Your task to perform on an android device: turn on improve location accuracy Image 0: 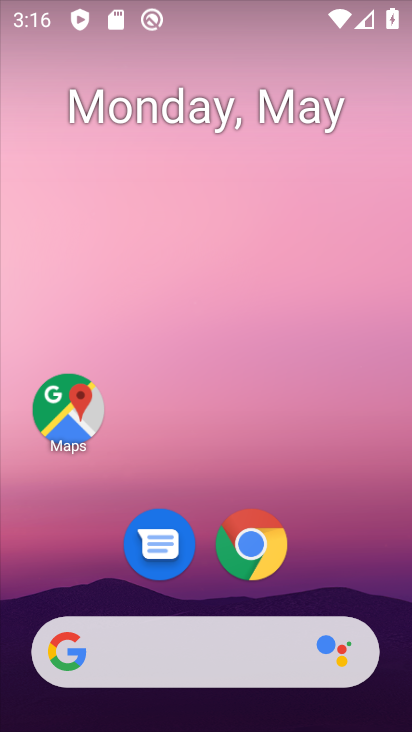
Step 0: drag from (327, 588) to (288, 111)
Your task to perform on an android device: turn on improve location accuracy Image 1: 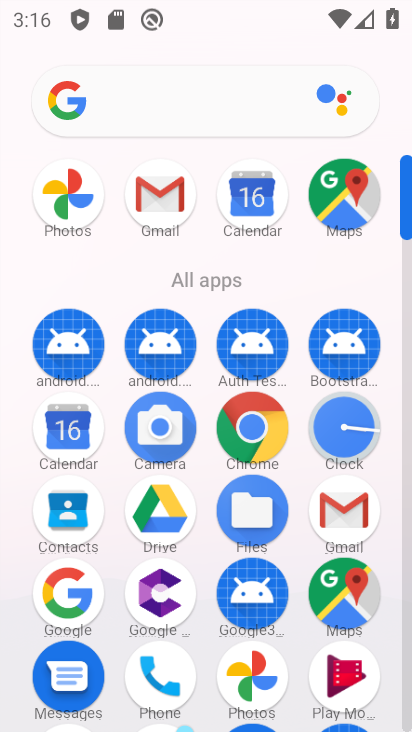
Step 1: drag from (284, 652) to (295, 342)
Your task to perform on an android device: turn on improve location accuracy Image 2: 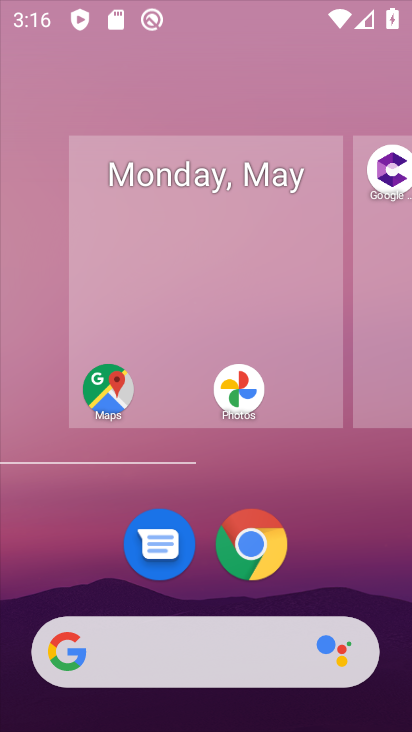
Step 2: click (357, 556)
Your task to perform on an android device: turn on improve location accuracy Image 3: 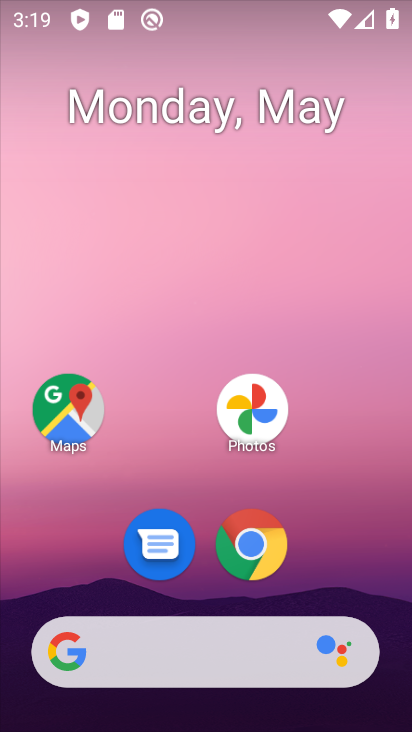
Step 3: drag from (307, 602) to (319, 156)
Your task to perform on an android device: turn on improve location accuracy Image 4: 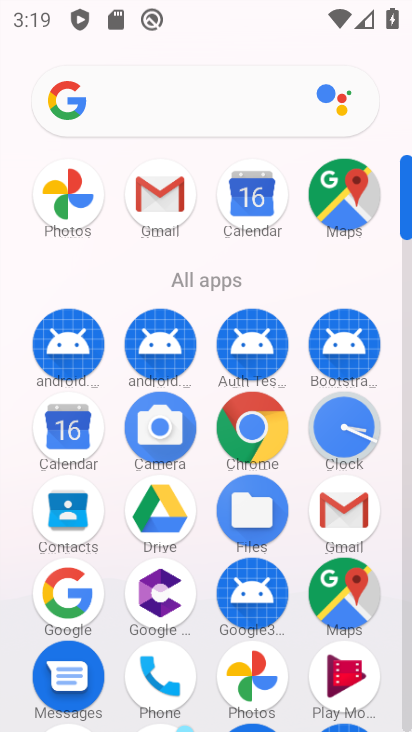
Step 4: drag from (319, 664) to (308, 262)
Your task to perform on an android device: turn on improve location accuracy Image 5: 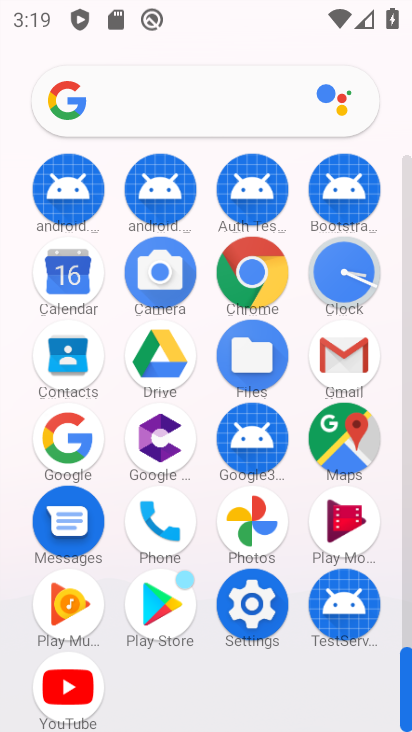
Step 5: click (264, 628)
Your task to perform on an android device: turn on improve location accuracy Image 6: 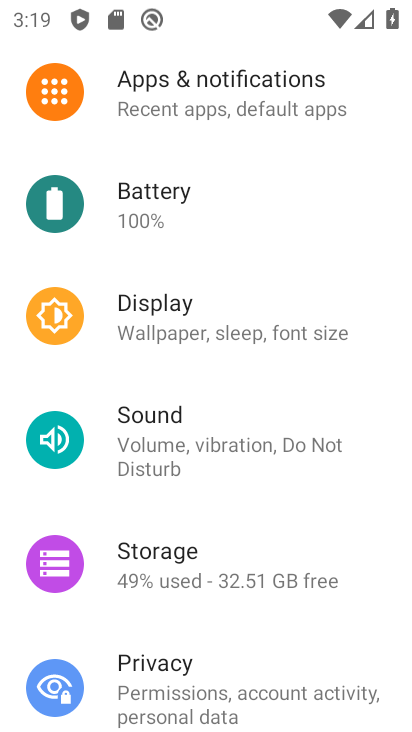
Step 6: drag from (272, 639) to (289, 176)
Your task to perform on an android device: turn on improve location accuracy Image 7: 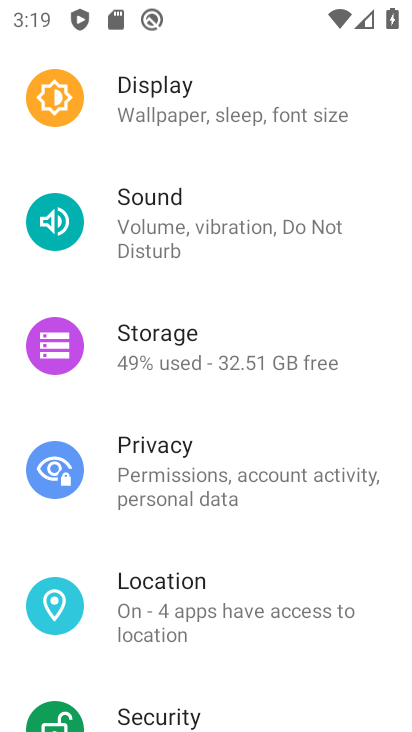
Step 7: click (287, 611)
Your task to perform on an android device: turn on improve location accuracy Image 8: 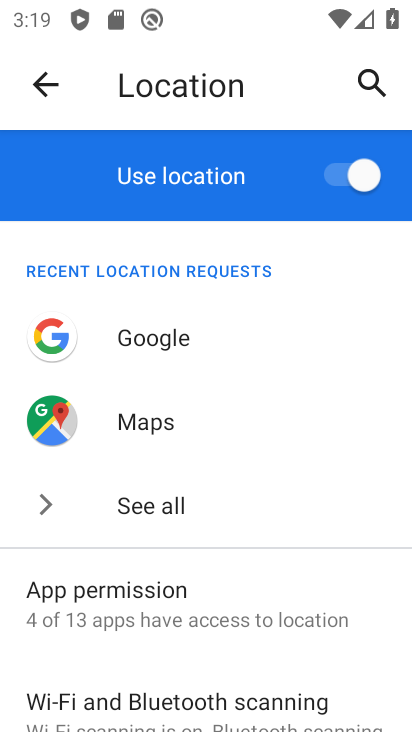
Step 8: drag from (297, 510) to (289, 187)
Your task to perform on an android device: turn on improve location accuracy Image 9: 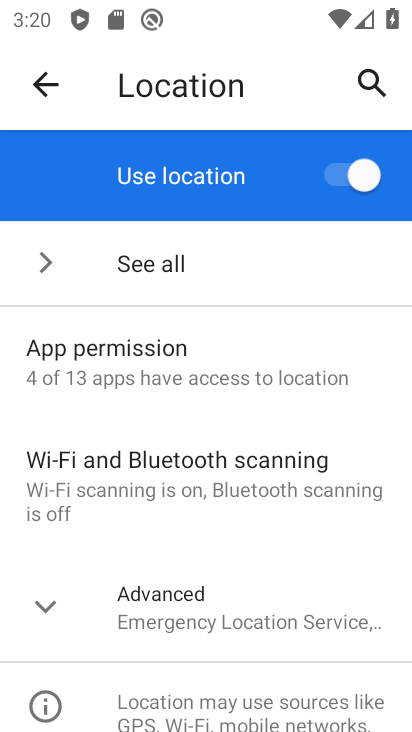
Step 9: click (168, 636)
Your task to perform on an android device: turn on improve location accuracy Image 10: 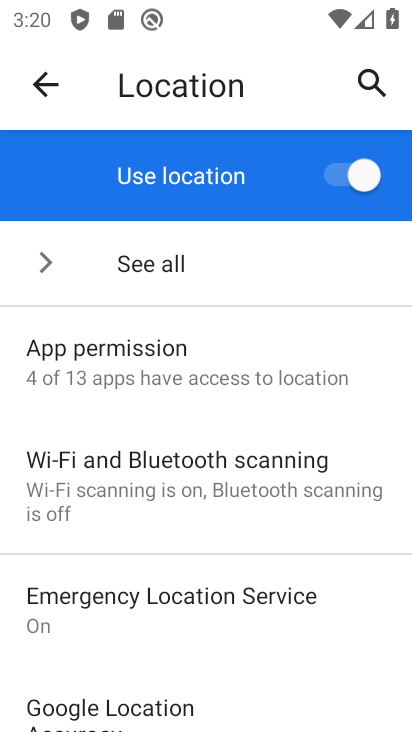
Step 10: task complete